Your task to perform on an android device: What's on my calendar tomorrow? Image 0: 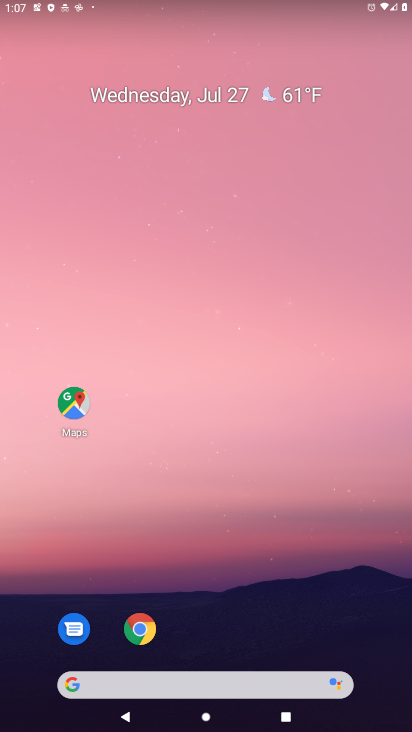
Step 0: drag from (289, 603) to (230, 374)
Your task to perform on an android device: What's on my calendar tomorrow? Image 1: 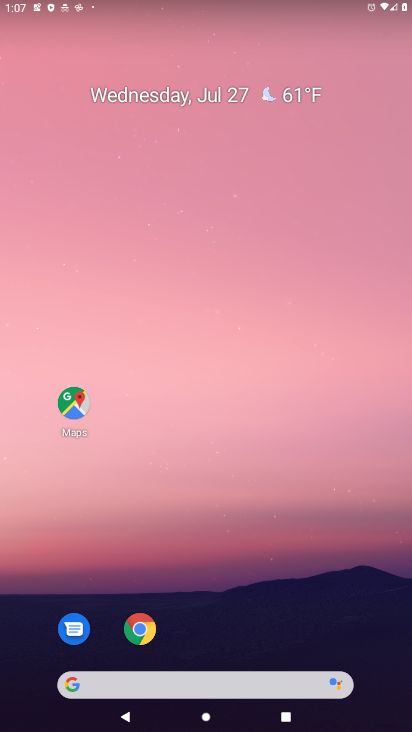
Step 1: drag from (266, 626) to (240, 292)
Your task to perform on an android device: What's on my calendar tomorrow? Image 2: 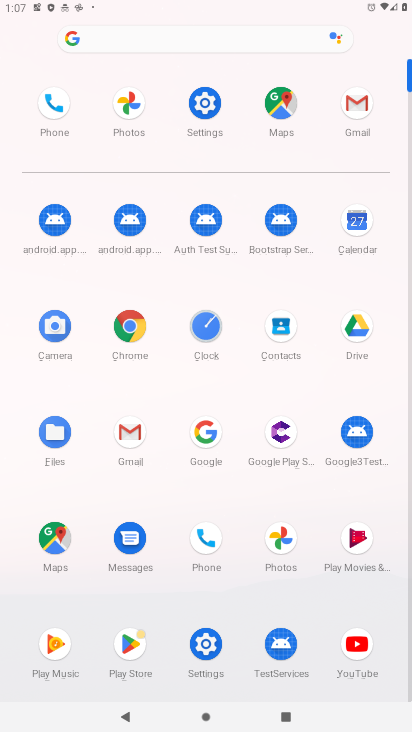
Step 2: click (334, 224)
Your task to perform on an android device: What's on my calendar tomorrow? Image 3: 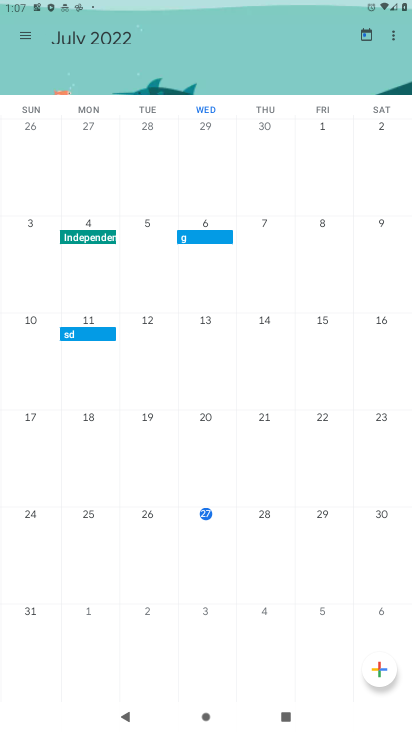
Step 3: task complete